Your task to perform on an android device: toggle pop-ups in chrome Image 0: 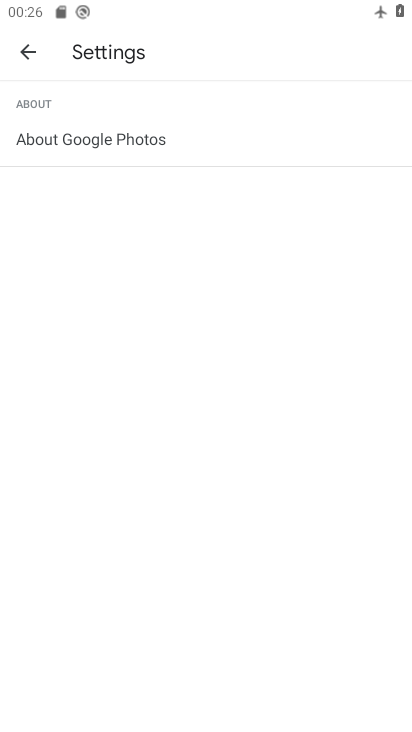
Step 0: press home button
Your task to perform on an android device: toggle pop-ups in chrome Image 1: 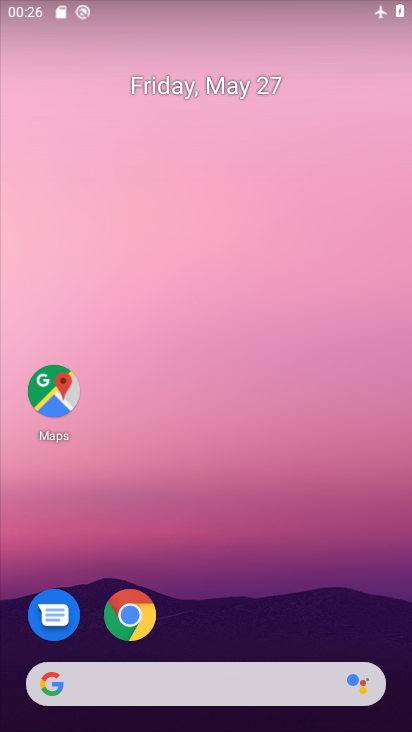
Step 1: drag from (340, 631) to (356, 234)
Your task to perform on an android device: toggle pop-ups in chrome Image 2: 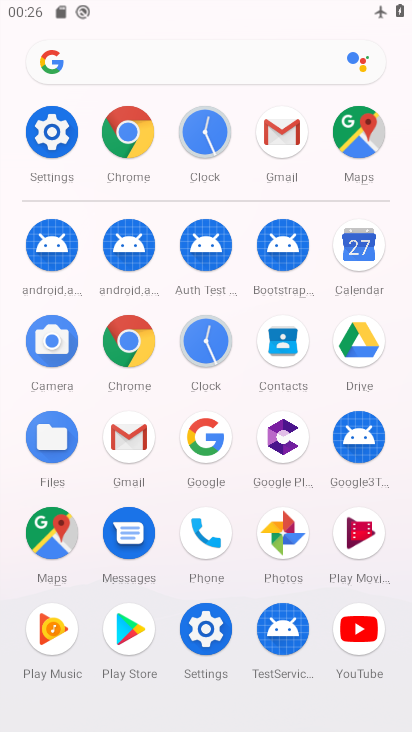
Step 2: click (128, 362)
Your task to perform on an android device: toggle pop-ups in chrome Image 3: 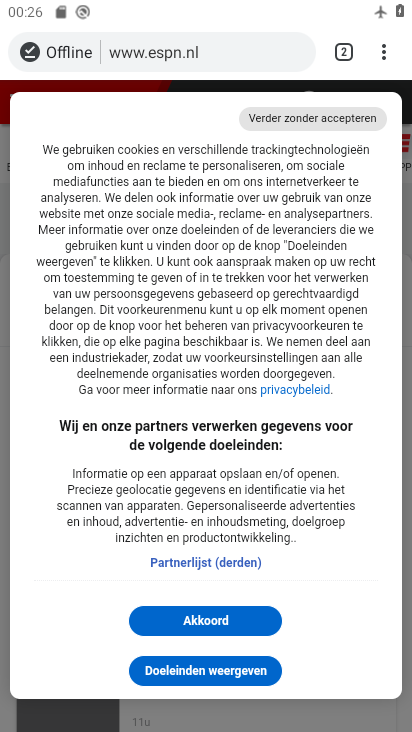
Step 3: click (380, 55)
Your task to perform on an android device: toggle pop-ups in chrome Image 4: 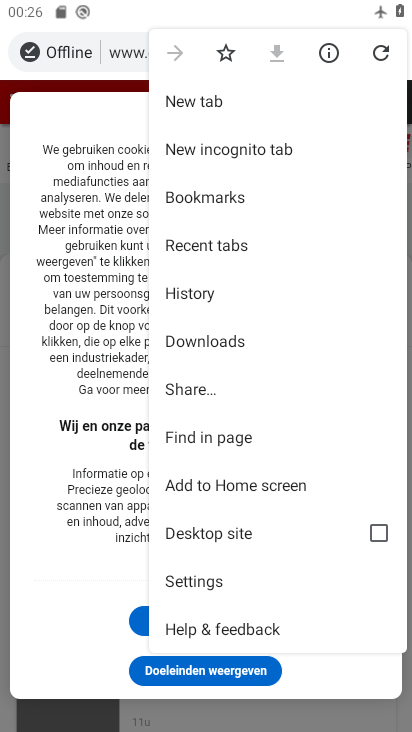
Step 4: click (218, 583)
Your task to perform on an android device: toggle pop-ups in chrome Image 5: 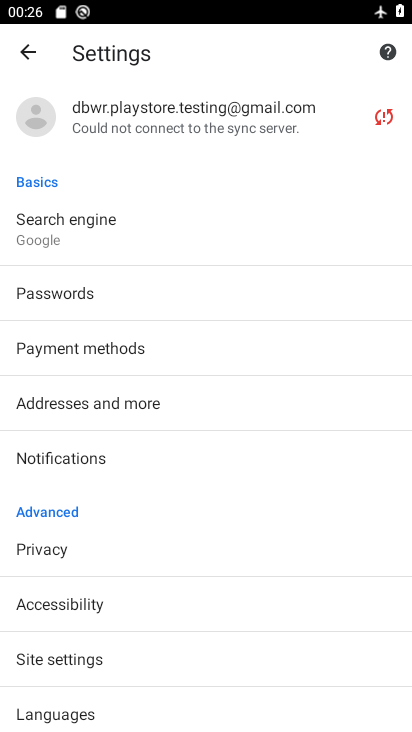
Step 5: drag from (251, 617) to (286, 496)
Your task to perform on an android device: toggle pop-ups in chrome Image 6: 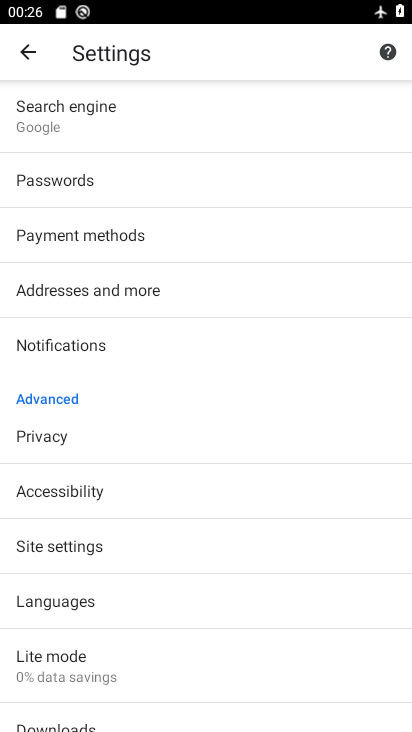
Step 6: drag from (316, 649) to (335, 490)
Your task to perform on an android device: toggle pop-ups in chrome Image 7: 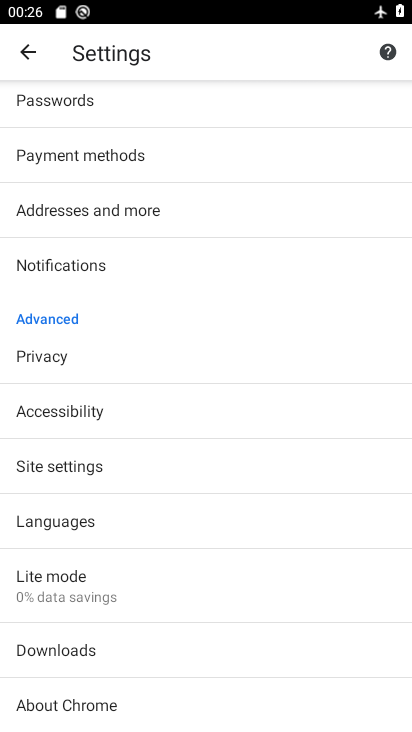
Step 7: drag from (331, 599) to (334, 444)
Your task to perform on an android device: toggle pop-ups in chrome Image 8: 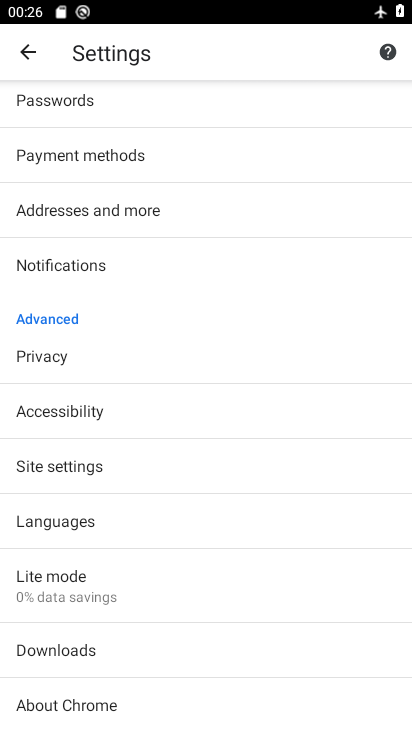
Step 8: drag from (314, 297) to (314, 421)
Your task to perform on an android device: toggle pop-ups in chrome Image 9: 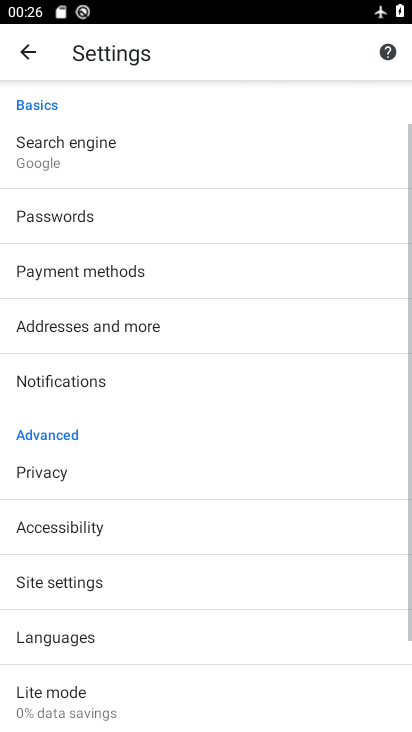
Step 9: drag from (317, 585) to (320, 420)
Your task to perform on an android device: toggle pop-ups in chrome Image 10: 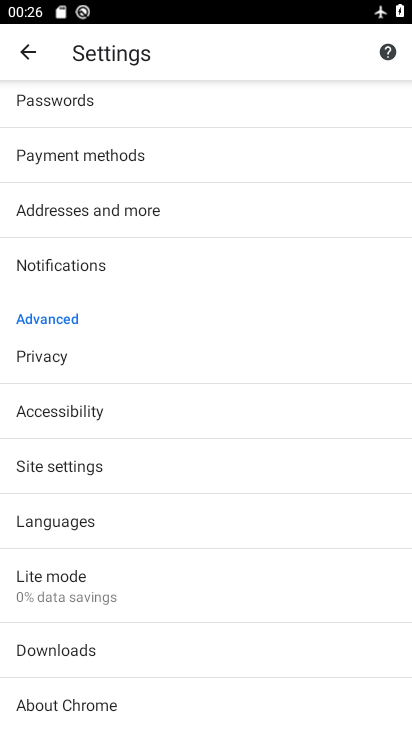
Step 10: click (287, 472)
Your task to perform on an android device: toggle pop-ups in chrome Image 11: 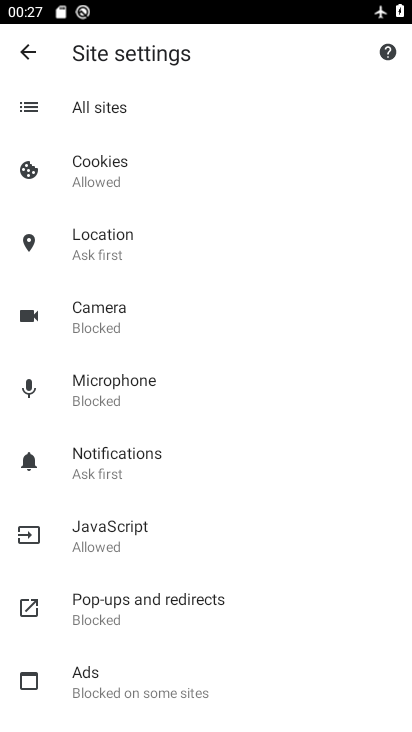
Step 11: drag from (300, 557) to (306, 476)
Your task to perform on an android device: toggle pop-ups in chrome Image 12: 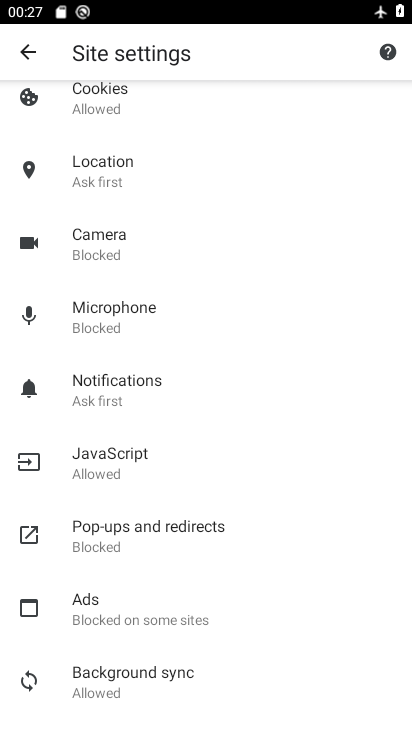
Step 12: drag from (310, 561) to (315, 474)
Your task to perform on an android device: toggle pop-ups in chrome Image 13: 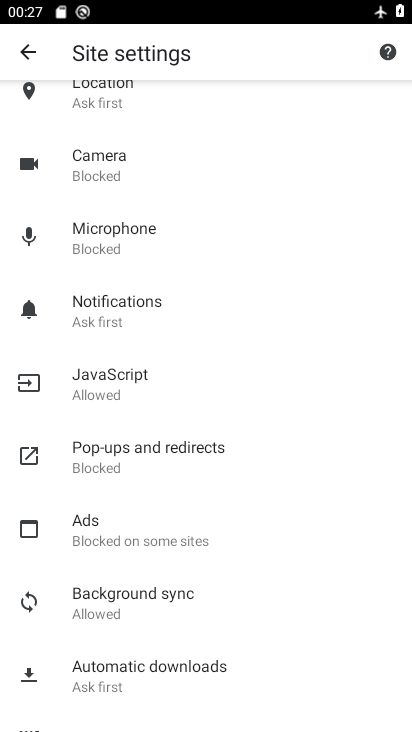
Step 13: drag from (312, 560) to (305, 467)
Your task to perform on an android device: toggle pop-ups in chrome Image 14: 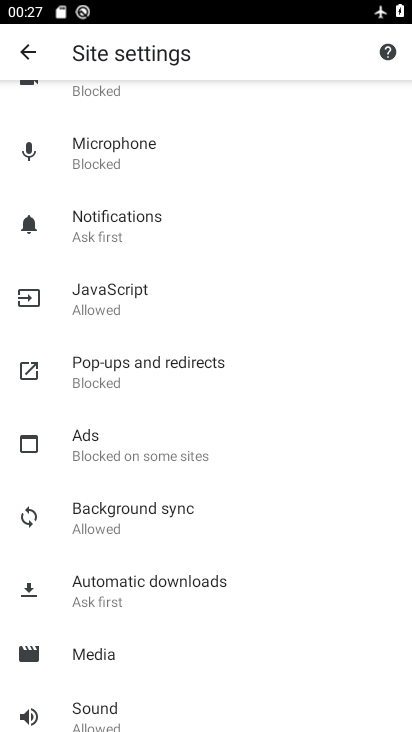
Step 14: drag from (298, 559) to (296, 484)
Your task to perform on an android device: toggle pop-ups in chrome Image 15: 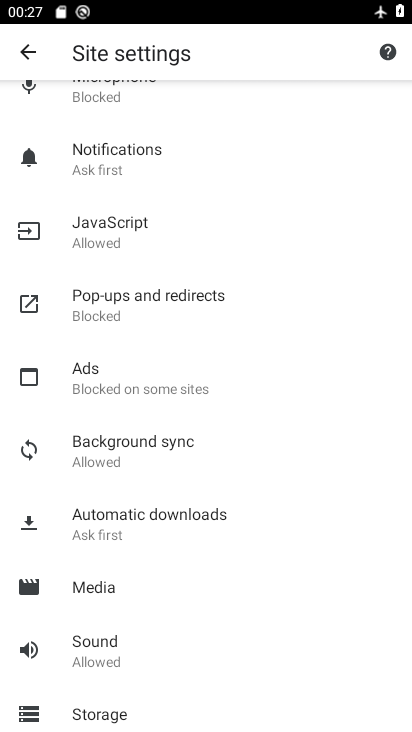
Step 15: click (194, 335)
Your task to perform on an android device: toggle pop-ups in chrome Image 16: 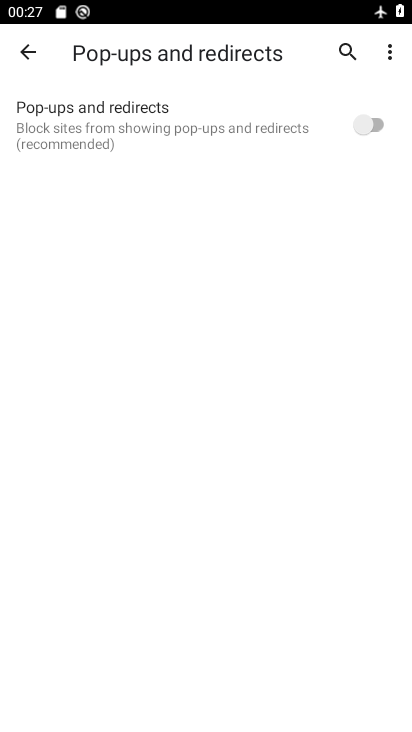
Step 16: click (355, 127)
Your task to perform on an android device: toggle pop-ups in chrome Image 17: 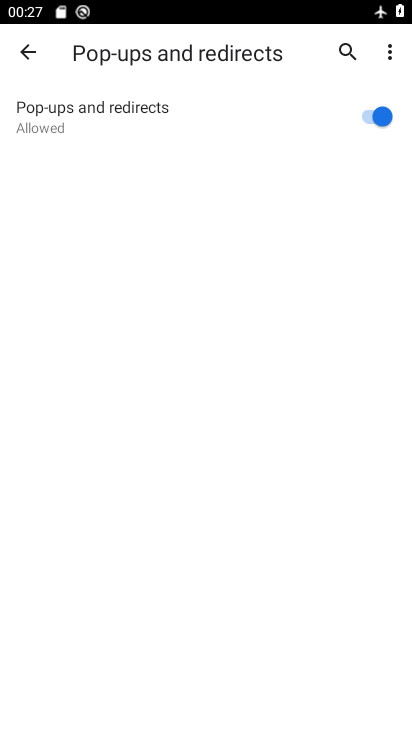
Step 17: task complete